Your task to perform on an android device: change notifications settings Image 0: 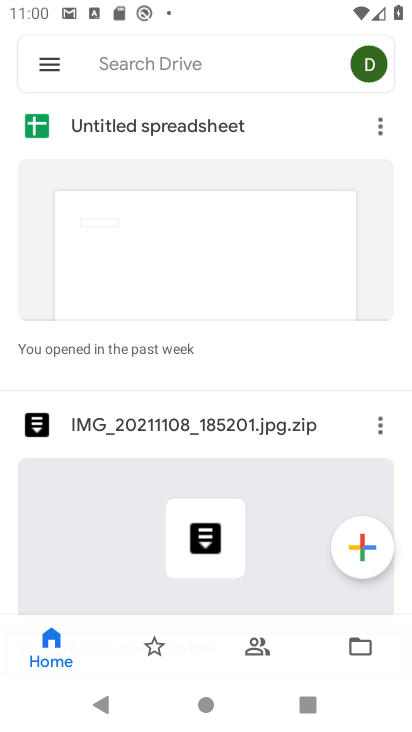
Step 0: press home button
Your task to perform on an android device: change notifications settings Image 1: 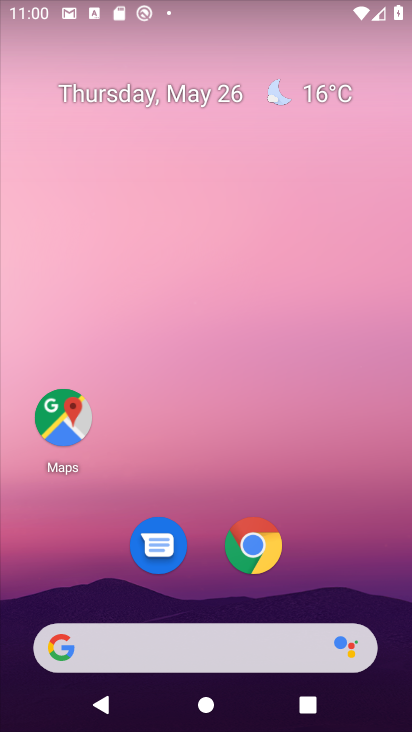
Step 1: drag from (185, 609) to (191, 130)
Your task to perform on an android device: change notifications settings Image 2: 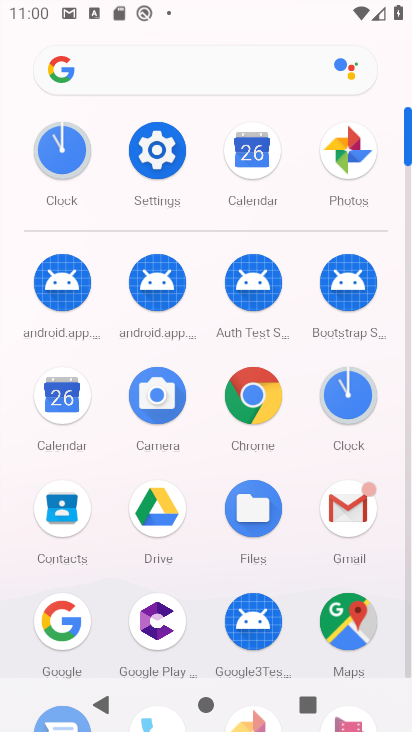
Step 2: click (168, 150)
Your task to perform on an android device: change notifications settings Image 3: 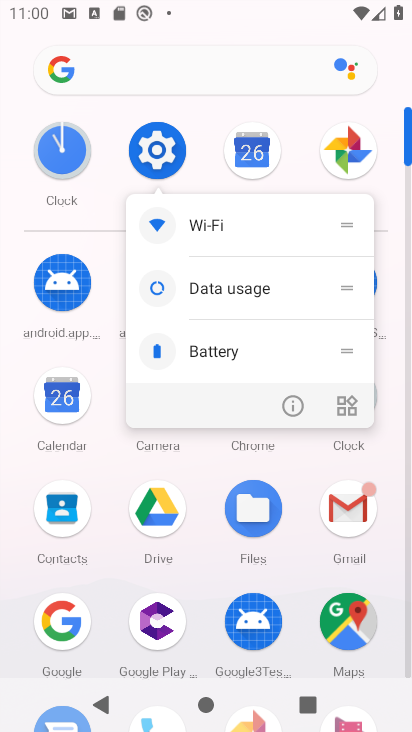
Step 3: click (154, 159)
Your task to perform on an android device: change notifications settings Image 4: 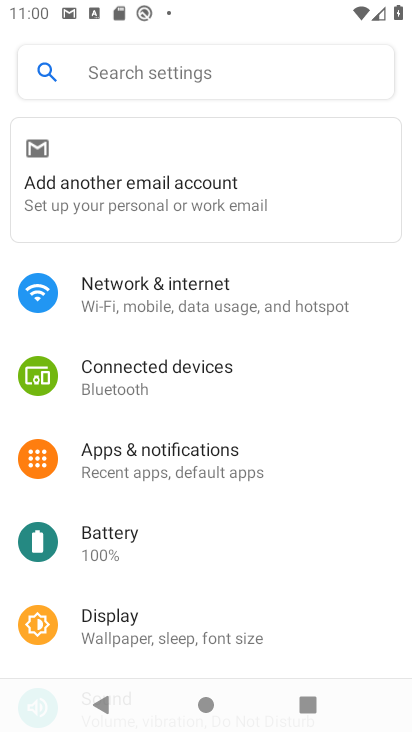
Step 4: click (153, 456)
Your task to perform on an android device: change notifications settings Image 5: 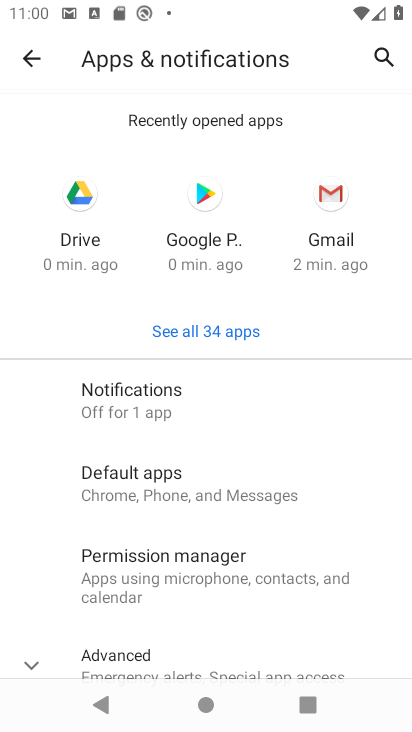
Step 5: click (130, 413)
Your task to perform on an android device: change notifications settings Image 6: 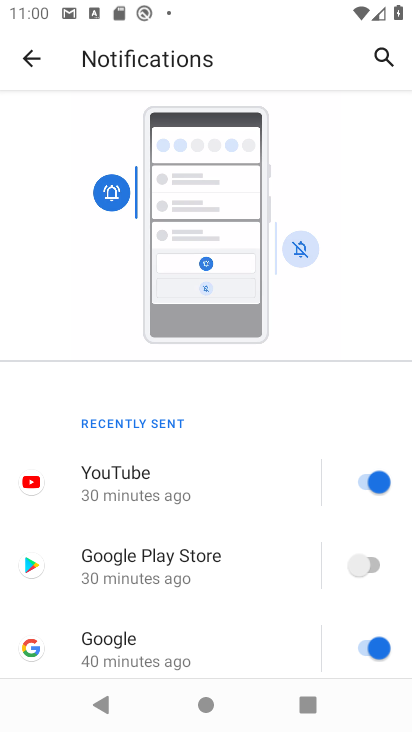
Step 6: click (394, 481)
Your task to perform on an android device: change notifications settings Image 7: 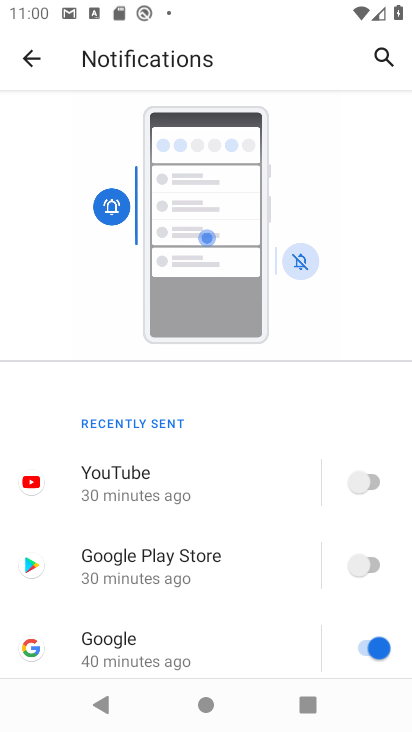
Step 7: task complete